Your task to perform on an android device: Open calendar and show me the first week of next month Image 0: 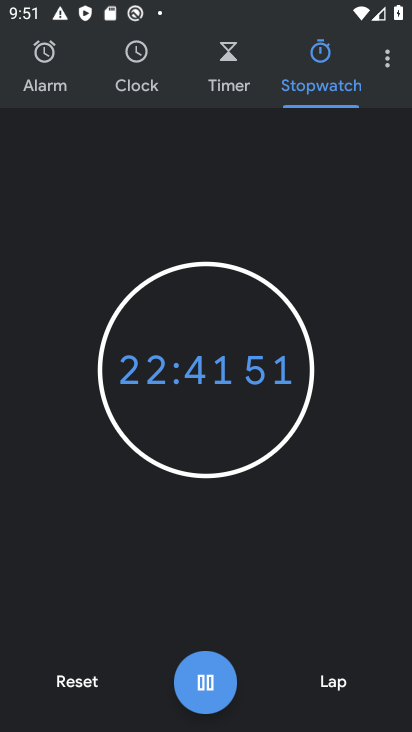
Step 0: press home button
Your task to perform on an android device: Open calendar and show me the first week of next month Image 1: 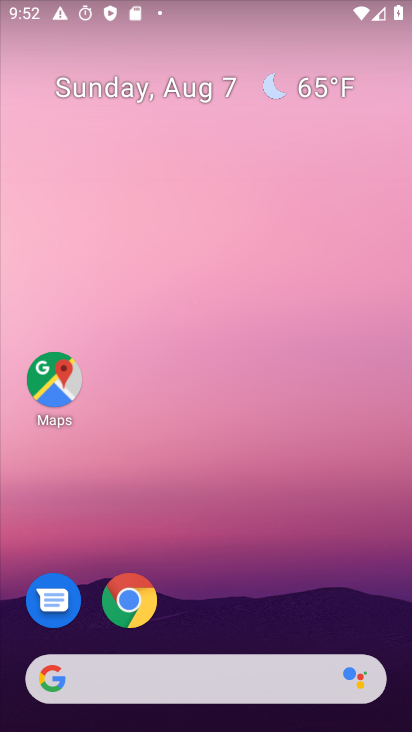
Step 1: drag from (223, 589) to (281, 117)
Your task to perform on an android device: Open calendar and show me the first week of next month Image 2: 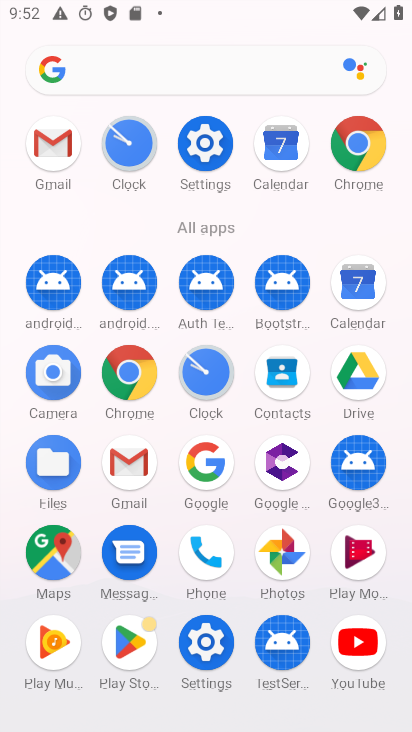
Step 2: click (347, 304)
Your task to perform on an android device: Open calendar and show me the first week of next month Image 3: 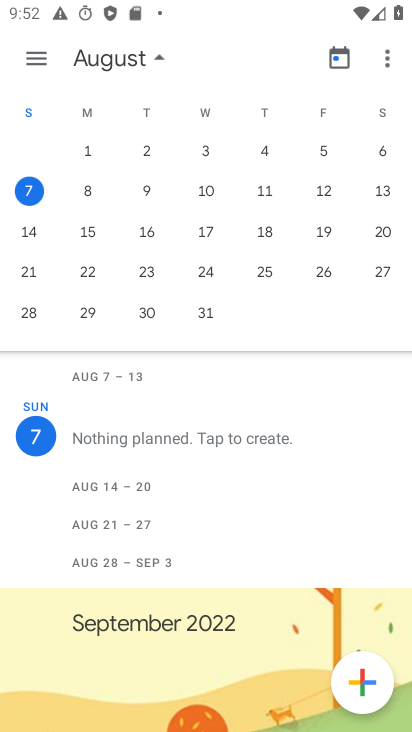
Step 3: drag from (339, 278) to (11, 304)
Your task to perform on an android device: Open calendar and show me the first week of next month Image 4: 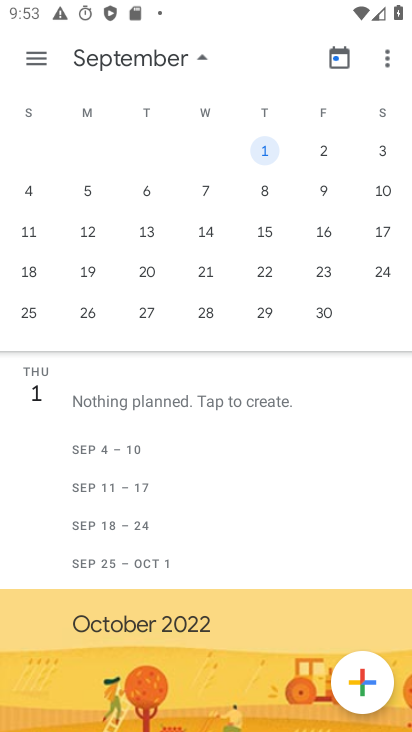
Step 4: click (264, 150)
Your task to perform on an android device: Open calendar and show me the first week of next month Image 5: 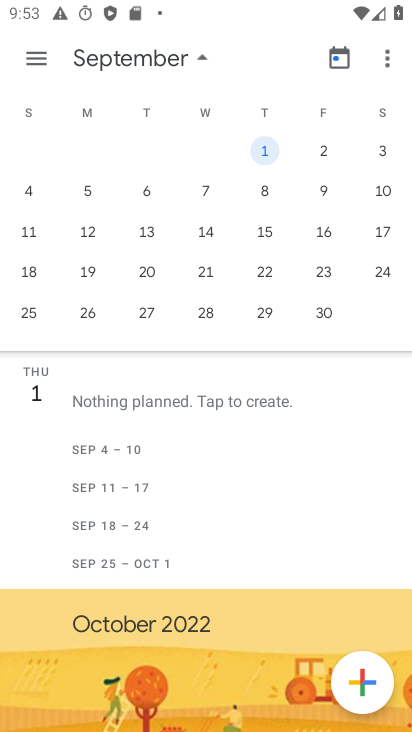
Step 5: task complete